Your task to perform on an android device: Go to Android settings Image 0: 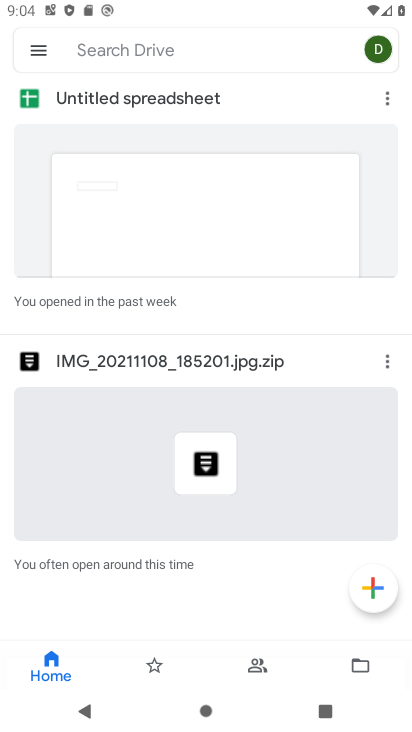
Step 0: press home button
Your task to perform on an android device: Go to Android settings Image 1: 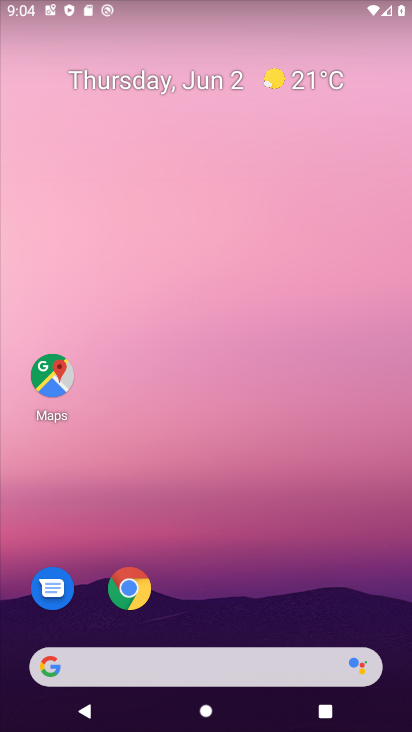
Step 1: drag from (203, 660) to (247, 126)
Your task to perform on an android device: Go to Android settings Image 2: 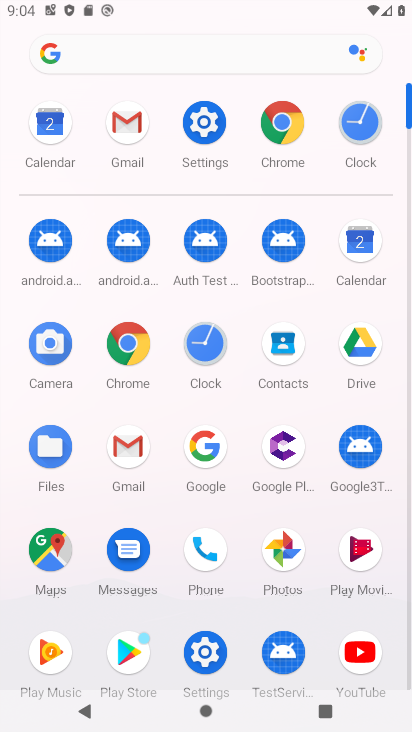
Step 2: click (207, 136)
Your task to perform on an android device: Go to Android settings Image 3: 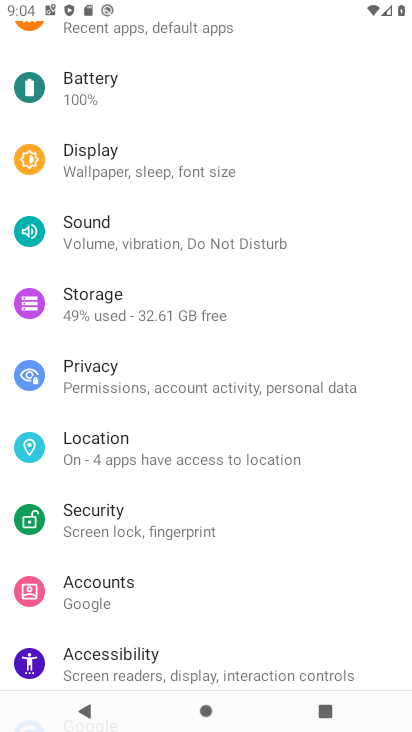
Step 3: drag from (106, 17) to (55, 26)
Your task to perform on an android device: Go to Android settings Image 4: 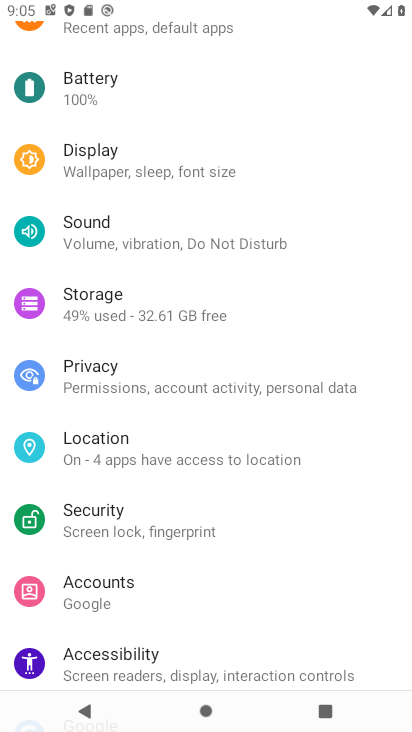
Step 4: drag from (209, 618) to (204, 18)
Your task to perform on an android device: Go to Android settings Image 5: 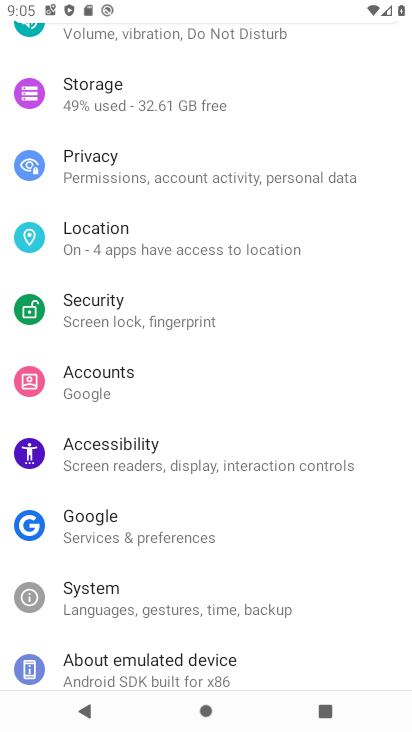
Step 5: click (166, 649)
Your task to perform on an android device: Go to Android settings Image 6: 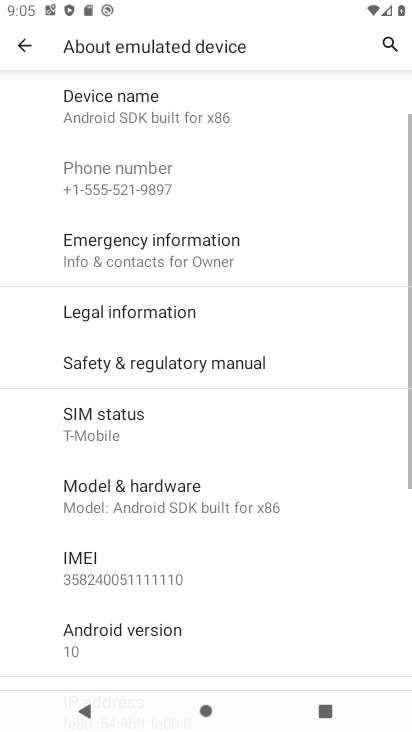
Step 6: task complete